Your task to perform on an android device: Set the phone to "Do not disturb". Image 0: 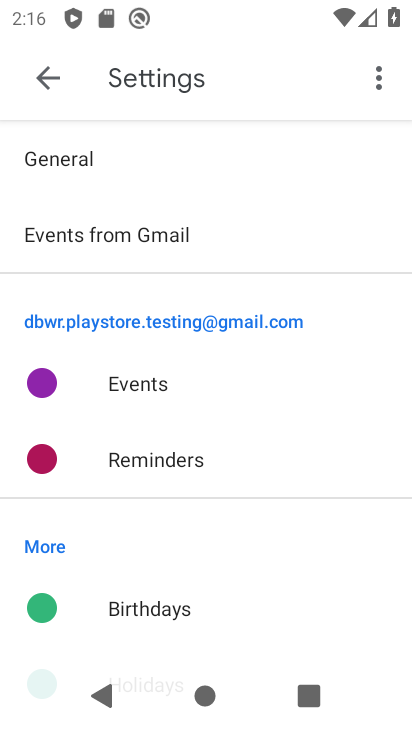
Step 0: press home button
Your task to perform on an android device: Set the phone to "Do not disturb". Image 1: 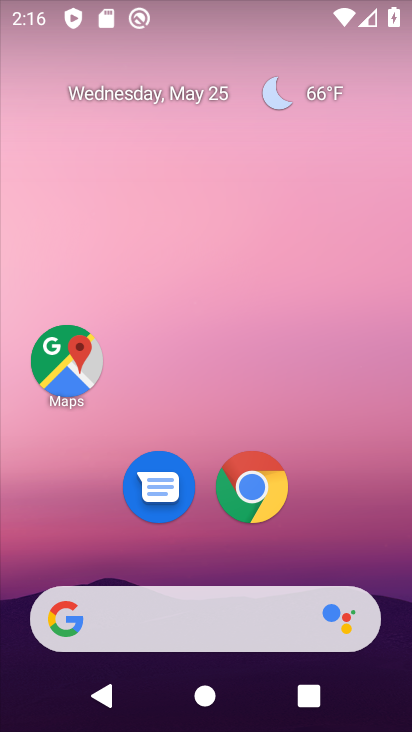
Step 1: drag from (248, 549) to (244, 93)
Your task to perform on an android device: Set the phone to "Do not disturb". Image 2: 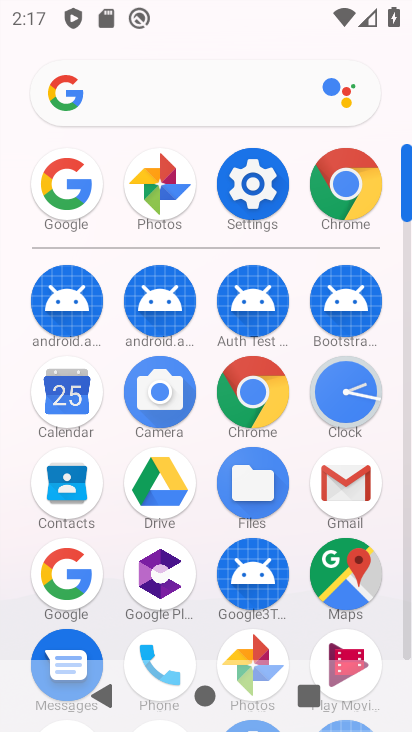
Step 2: click (250, 180)
Your task to perform on an android device: Set the phone to "Do not disturb". Image 3: 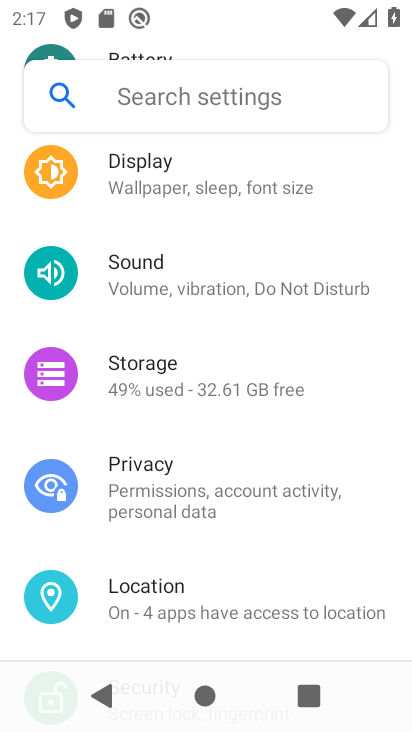
Step 3: drag from (192, 224) to (132, 577)
Your task to perform on an android device: Set the phone to "Do not disturb". Image 4: 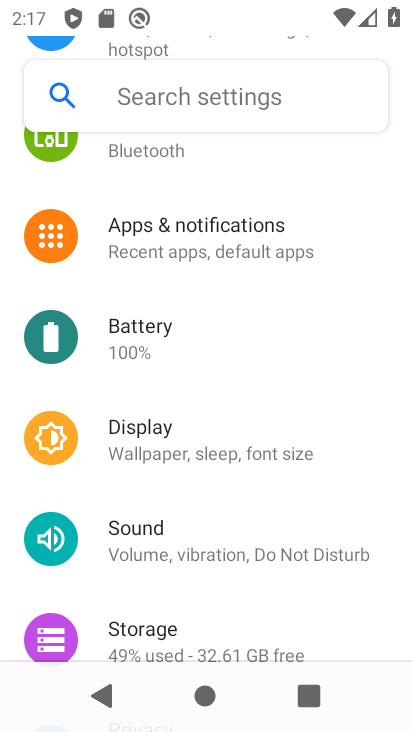
Step 4: click (123, 547)
Your task to perform on an android device: Set the phone to "Do not disturb". Image 5: 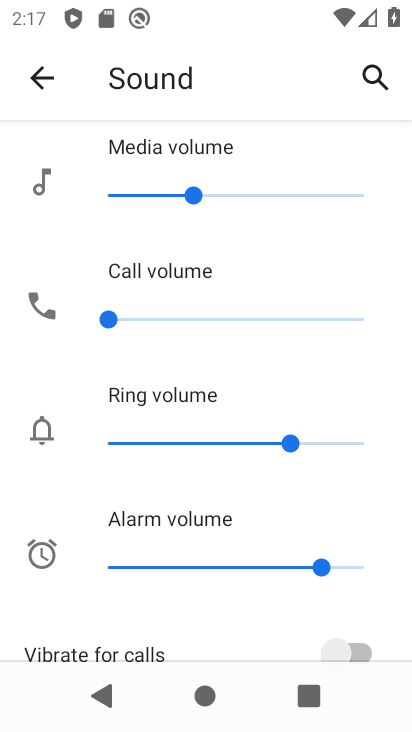
Step 5: drag from (287, 617) to (272, 137)
Your task to perform on an android device: Set the phone to "Do not disturb". Image 6: 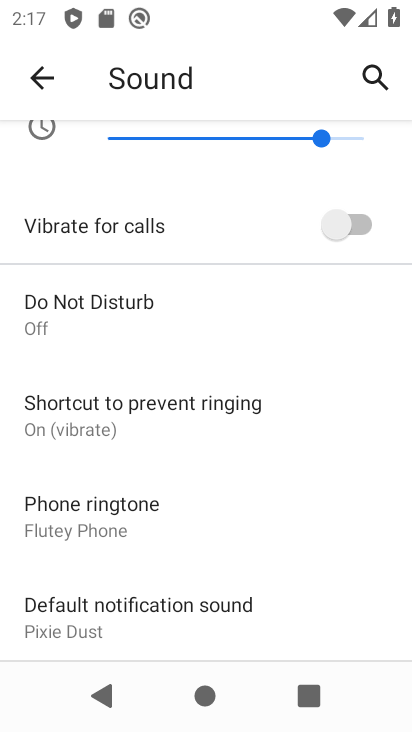
Step 6: click (56, 332)
Your task to perform on an android device: Set the phone to "Do not disturb". Image 7: 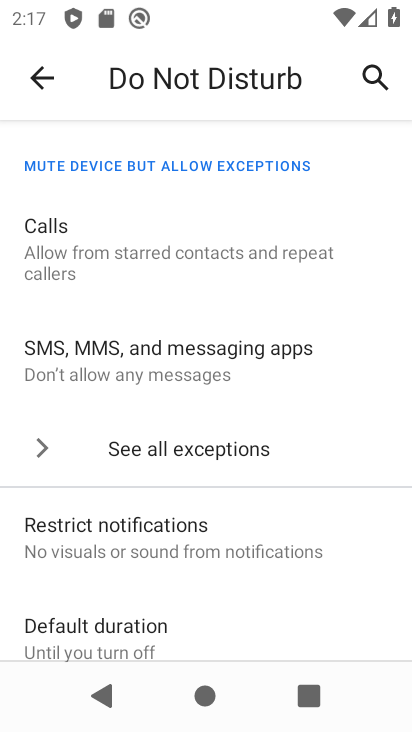
Step 7: drag from (230, 602) to (256, 264)
Your task to perform on an android device: Set the phone to "Do not disturb". Image 8: 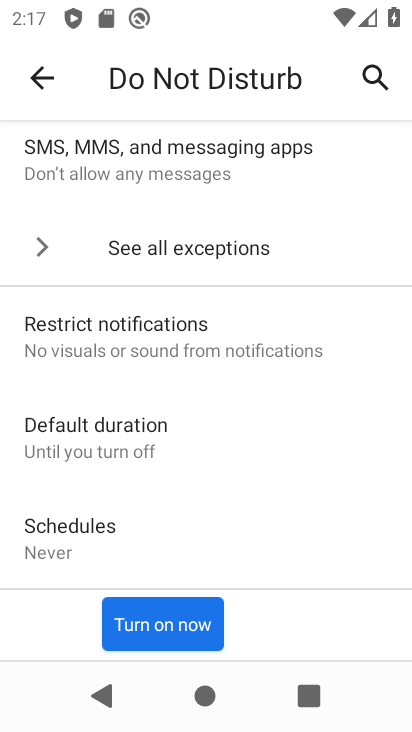
Step 8: click (149, 641)
Your task to perform on an android device: Set the phone to "Do not disturb". Image 9: 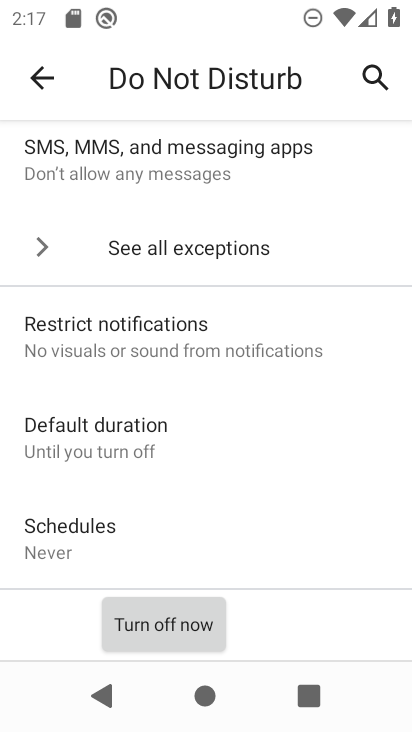
Step 9: task complete